Your task to perform on an android device: Open Chrome and go to the settings page Image 0: 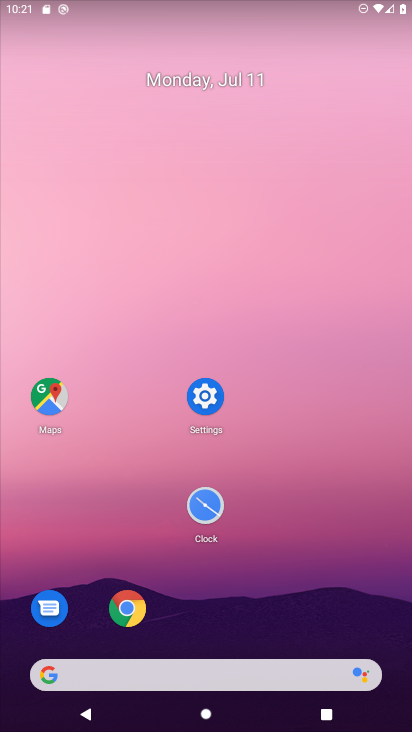
Step 0: click (123, 599)
Your task to perform on an android device: Open Chrome and go to the settings page Image 1: 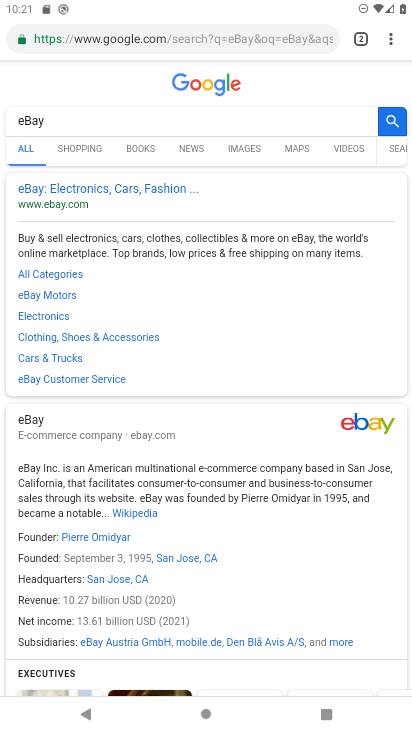
Step 1: click (390, 40)
Your task to perform on an android device: Open Chrome and go to the settings page Image 2: 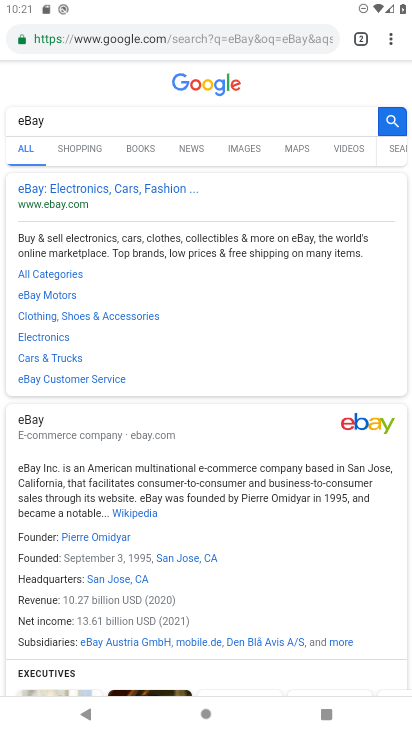
Step 2: click (391, 38)
Your task to perform on an android device: Open Chrome and go to the settings page Image 3: 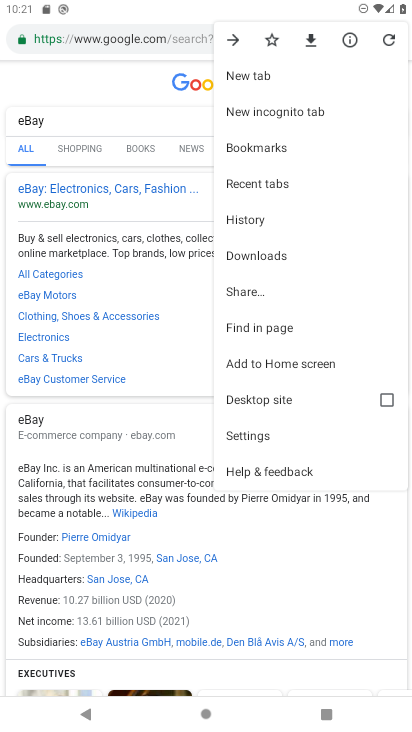
Step 3: click (242, 440)
Your task to perform on an android device: Open Chrome and go to the settings page Image 4: 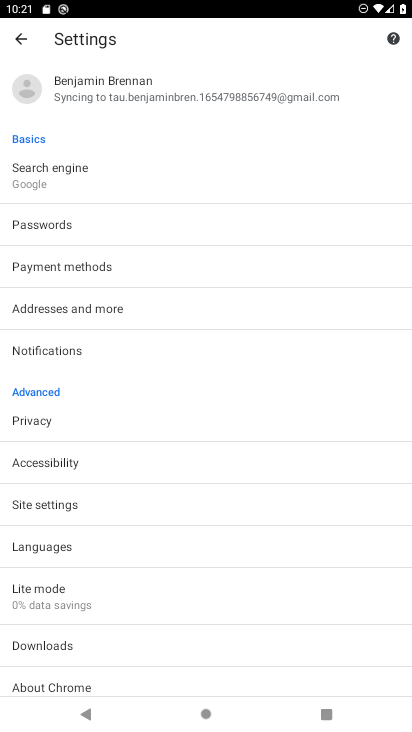
Step 4: task complete